Your task to perform on an android device: open app "Gmail" (install if not already installed) Image 0: 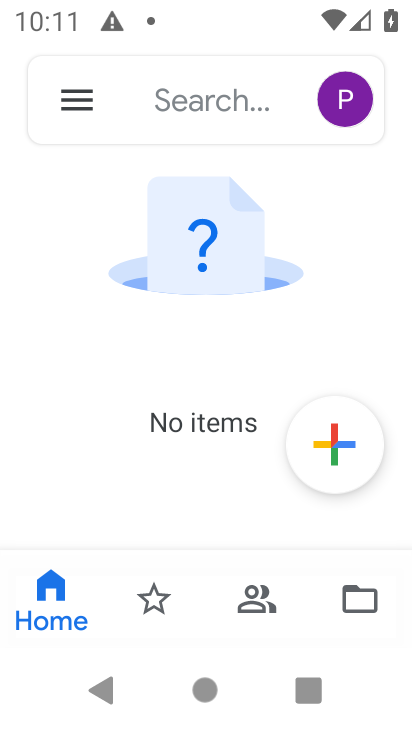
Step 0: press home button
Your task to perform on an android device: open app "Gmail" (install if not already installed) Image 1: 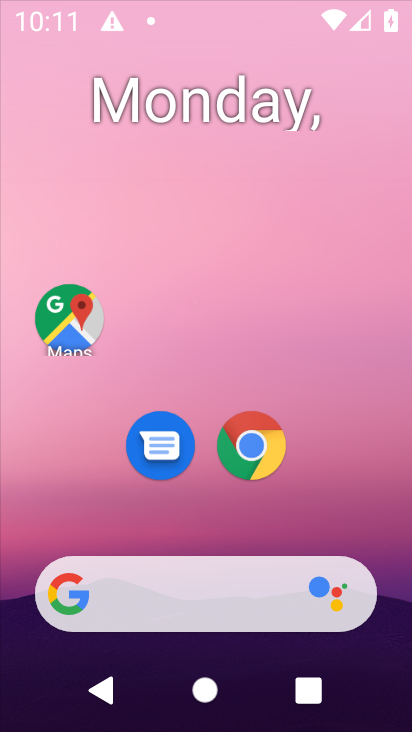
Step 1: drag from (397, 671) to (304, 94)
Your task to perform on an android device: open app "Gmail" (install if not already installed) Image 2: 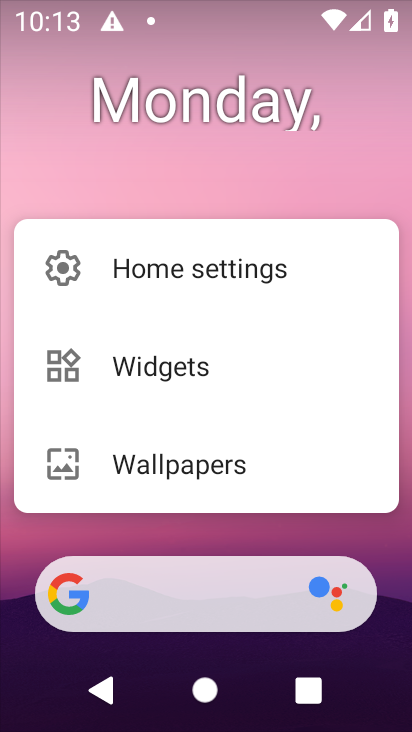
Step 2: press home button
Your task to perform on an android device: open app "Gmail" (install if not already installed) Image 3: 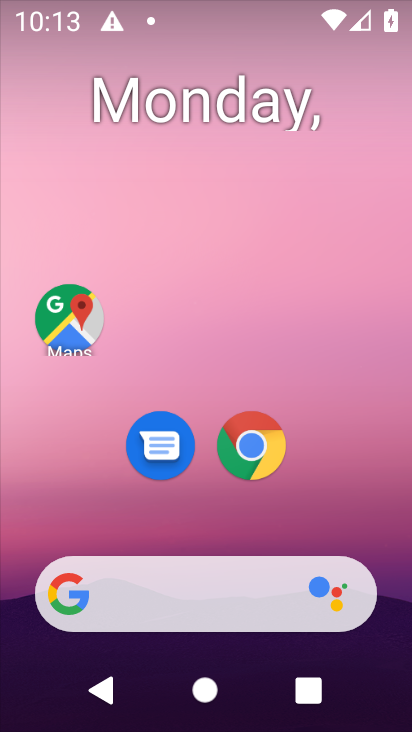
Step 3: drag from (392, 596) to (231, 124)
Your task to perform on an android device: open app "Gmail" (install if not already installed) Image 4: 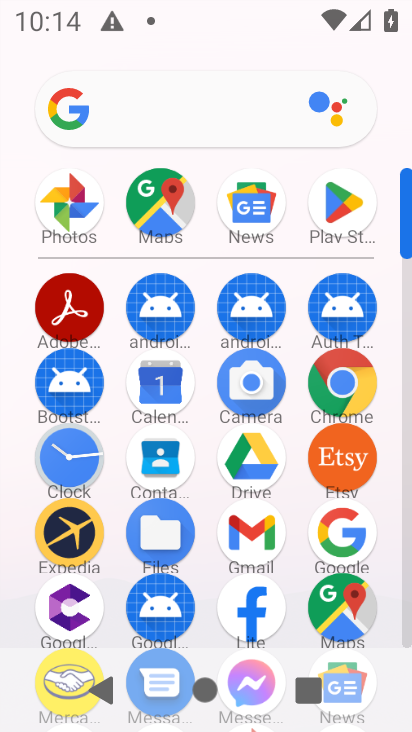
Step 4: click (324, 182)
Your task to perform on an android device: open app "Gmail" (install if not already installed) Image 5: 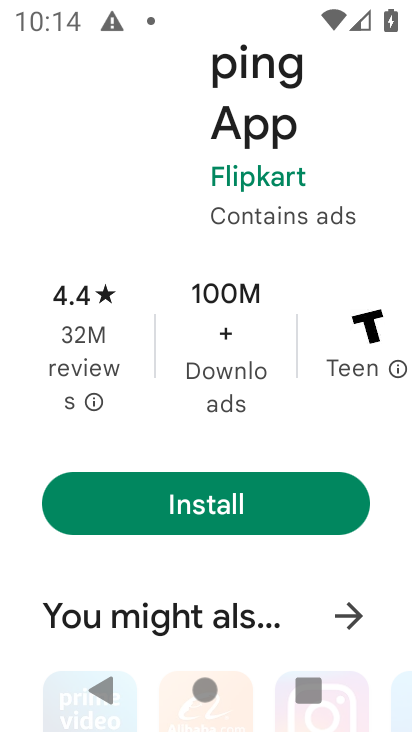
Step 5: press back button
Your task to perform on an android device: open app "Gmail" (install if not already installed) Image 6: 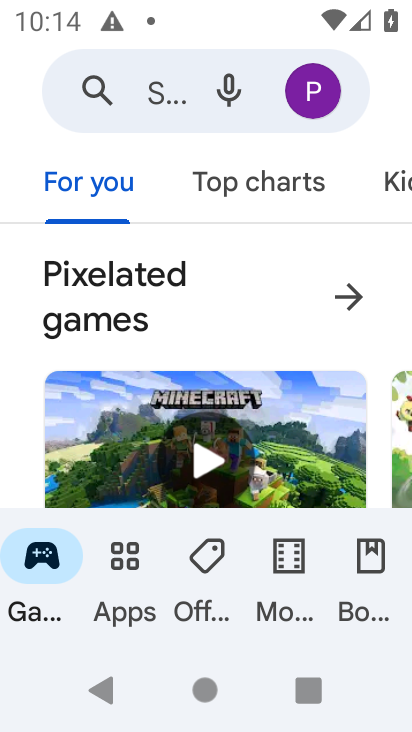
Step 6: click (141, 94)
Your task to perform on an android device: open app "Gmail" (install if not already installed) Image 7: 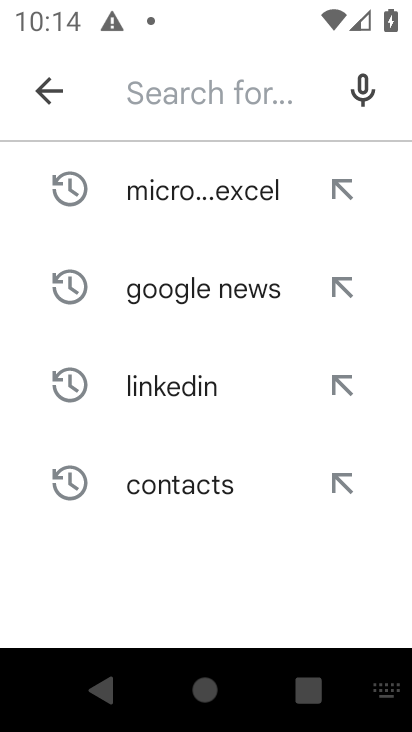
Step 7: type "Gmail"
Your task to perform on an android device: open app "Gmail" (install if not already installed) Image 8: 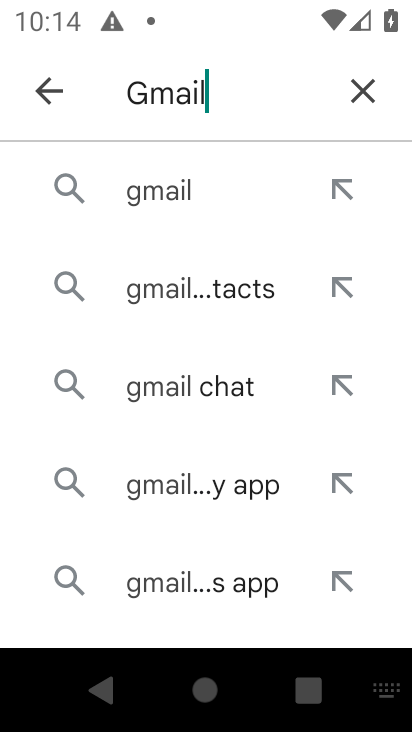
Step 8: click (184, 198)
Your task to perform on an android device: open app "Gmail" (install if not already installed) Image 9: 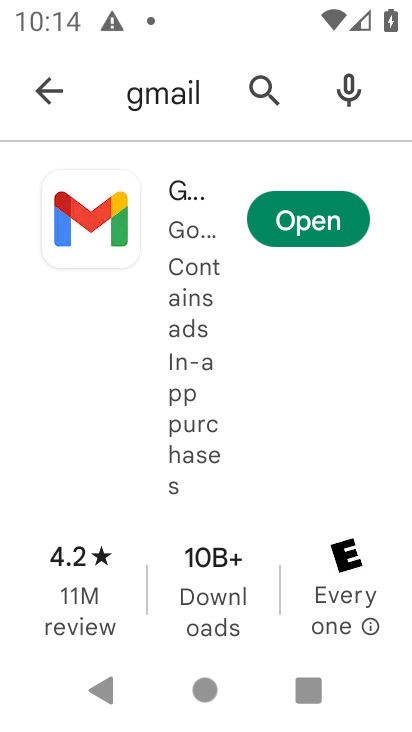
Step 9: click (312, 226)
Your task to perform on an android device: open app "Gmail" (install if not already installed) Image 10: 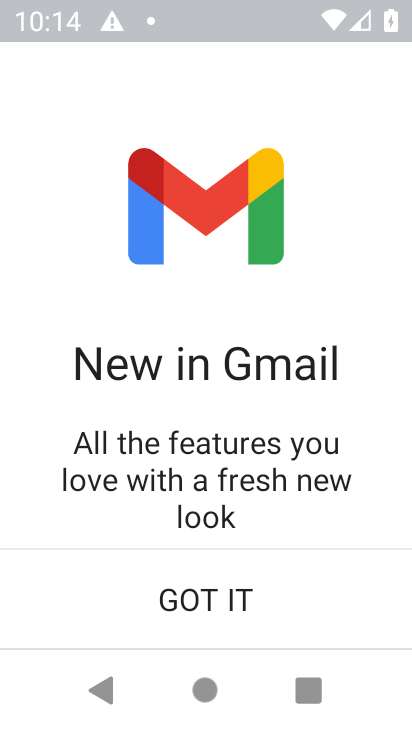
Step 10: task complete